Your task to perform on an android device: open app "Messenger Lite" (install if not already installed) Image 0: 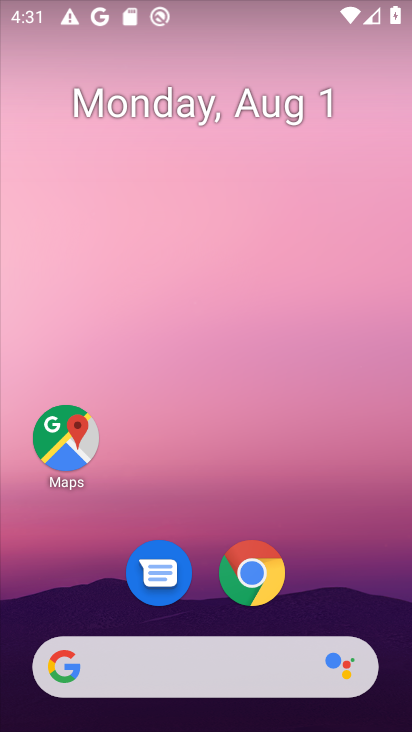
Step 0: drag from (243, 564) to (200, 185)
Your task to perform on an android device: open app "Messenger Lite" (install if not already installed) Image 1: 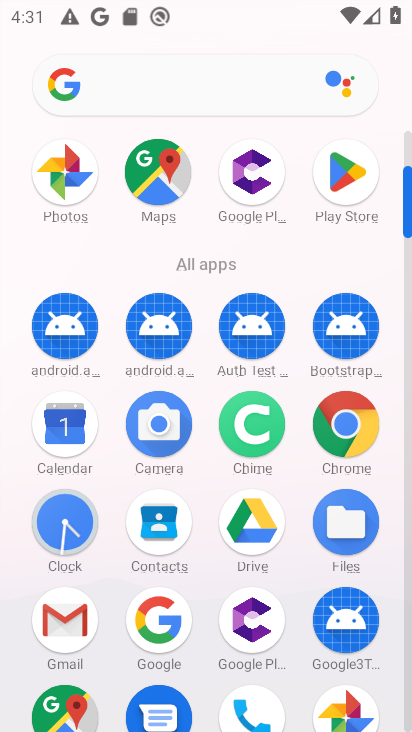
Step 1: drag from (210, 475) to (249, 118)
Your task to perform on an android device: open app "Messenger Lite" (install if not already installed) Image 2: 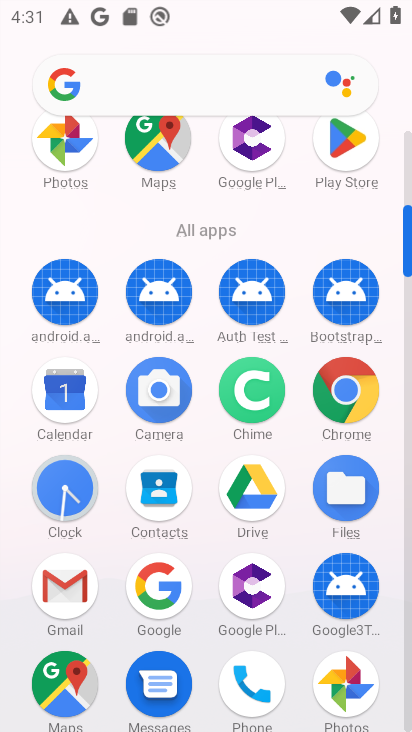
Step 2: click (343, 153)
Your task to perform on an android device: open app "Messenger Lite" (install if not already installed) Image 3: 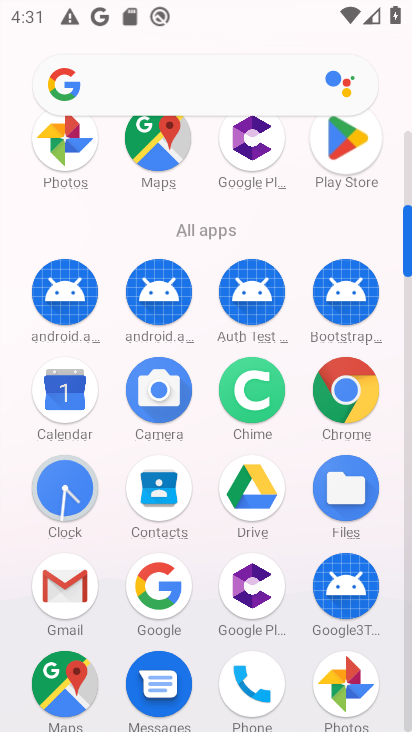
Step 3: click (344, 151)
Your task to perform on an android device: open app "Messenger Lite" (install if not already installed) Image 4: 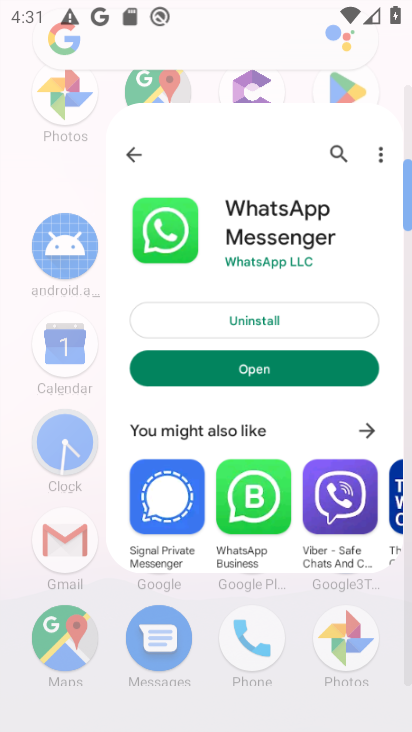
Step 4: click (344, 151)
Your task to perform on an android device: open app "Messenger Lite" (install if not already installed) Image 5: 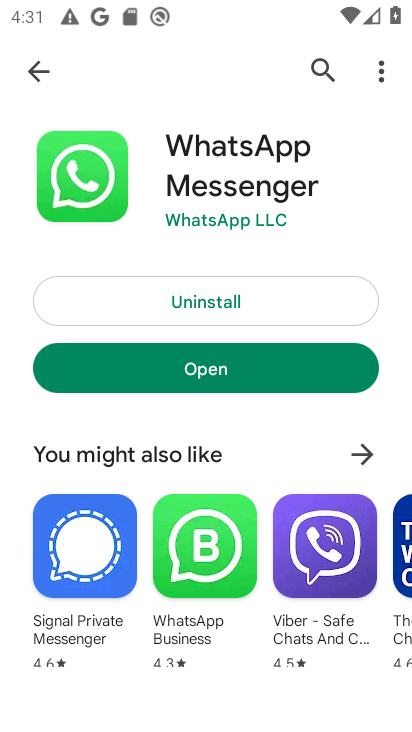
Step 5: click (37, 73)
Your task to perform on an android device: open app "Messenger Lite" (install if not already installed) Image 6: 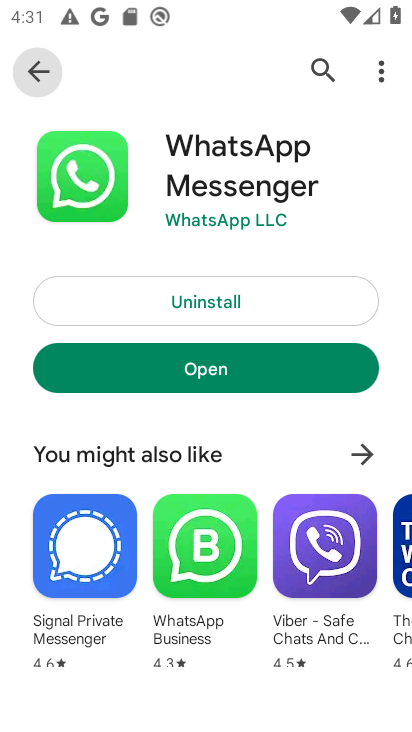
Step 6: click (38, 72)
Your task to perform on an android device: open app "Messenger Lite" (install if not already installed) Image 7: 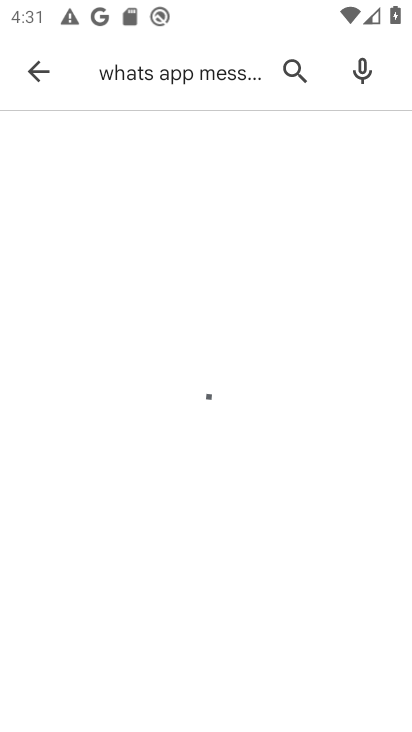
Step 7: click (38, 72)
Your task to perform on an android device: open app "Messenger Lite" (install if not already installed) Image 8: 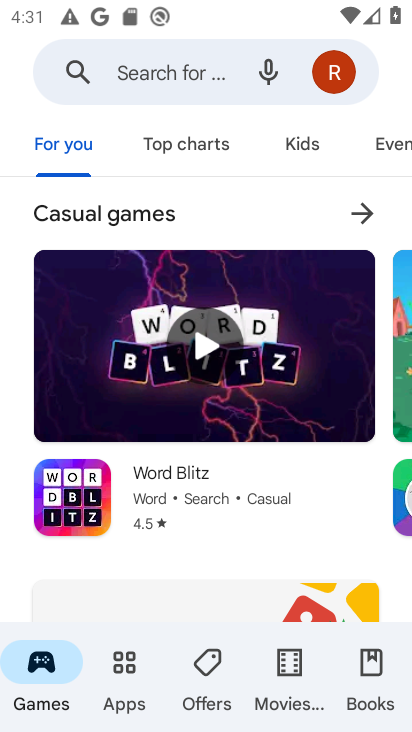
Step 8: click (152, 79)
Your task to perform on an android device: open app "Messenger Lite" (install if not already installed) Image 9: 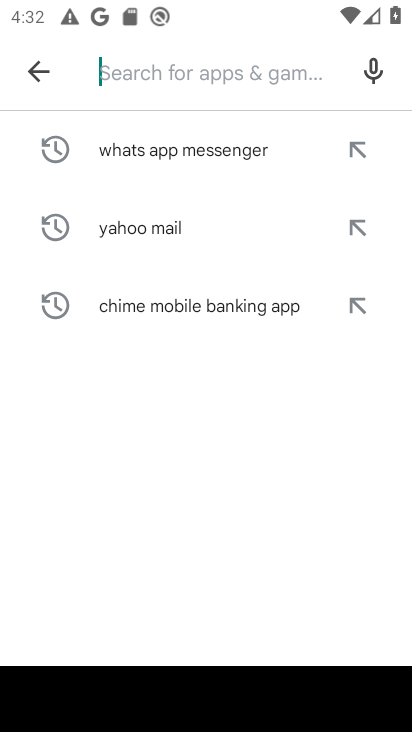
Step 9: type "messenger lite"
Your task to perform on an android device: open app "Messenger Lite" (install if not already installed) Image 10: 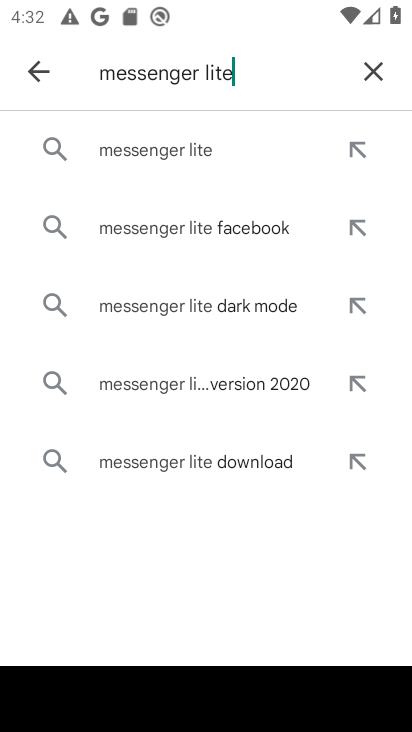
Step 10: click (158, 135)
Your task to perform on an android device: open app "Messenger Lite" (install if not already installed) Image 11: 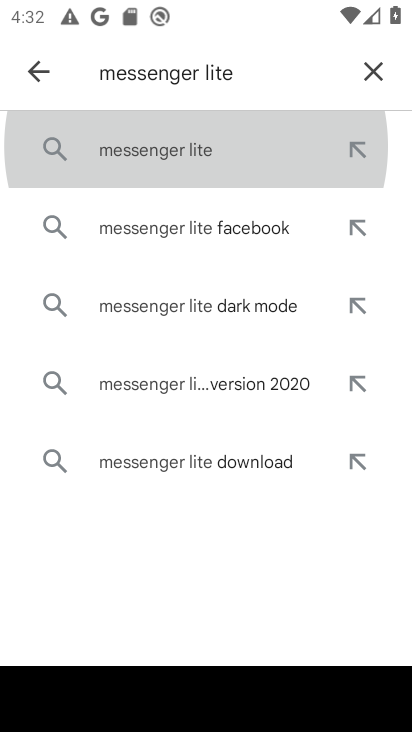
Step 11: click (156, 168)
Your task to perform on an android device: open app "Messenger Lite" (install if not already installed) Image 12: 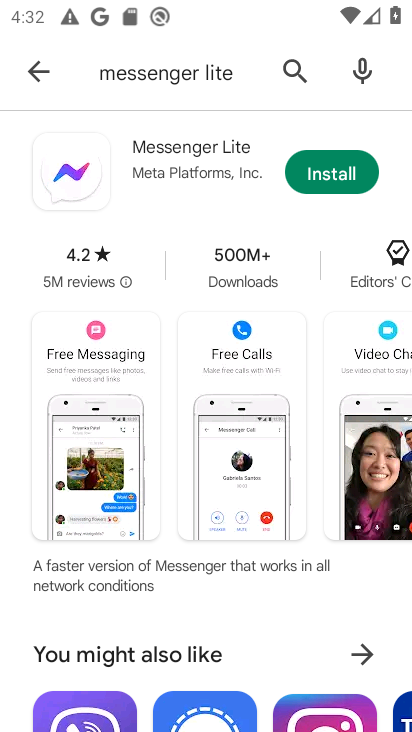
Step 12: click (321, 179)
Your task to perform on an android device: open app "Messenger Lite" (install if not already installed) Image 13: 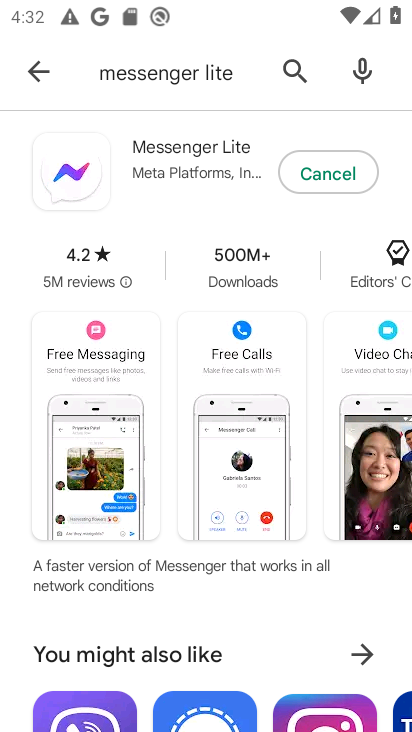
Step 13: click (323, 177)
Your task to perform on an android device: open app "Messenger Lite" (install if not already installed) Image 14: 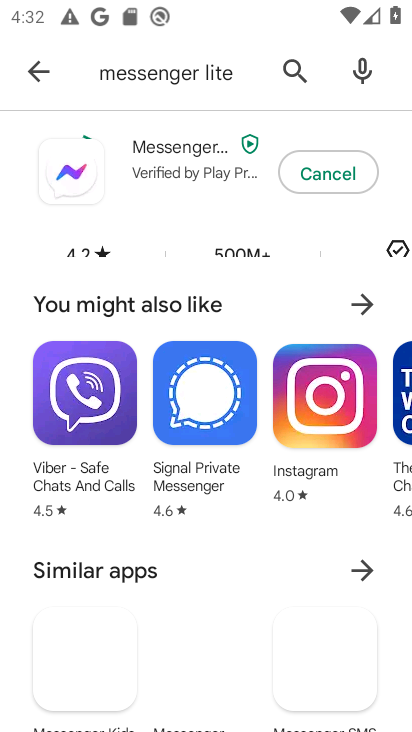
Step 14: click (323, 177)
Your task to perform on an android device: open app "Messenger Lite" (install if not already installed) Image 15: 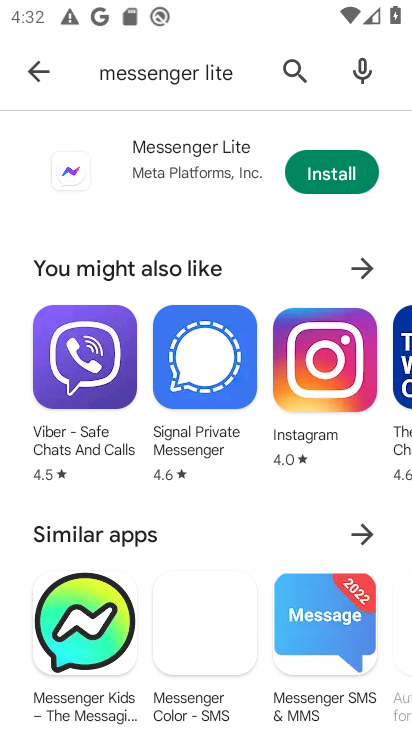
Step 15: click (324, 177)
Your task to perform on an android device: open app "Messenger Lite" (install if not already installed) Image 16: 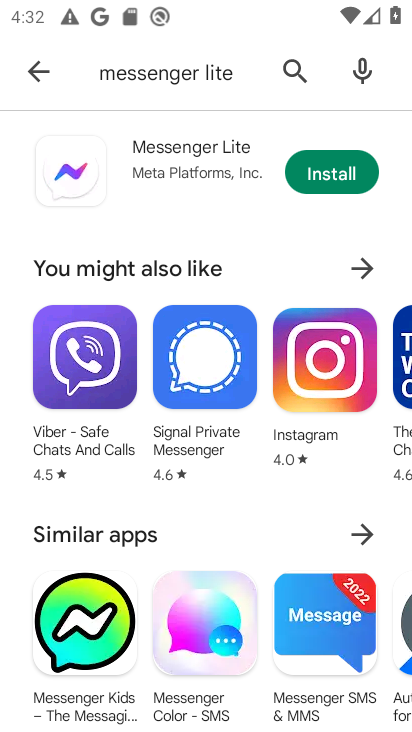
Step 16: click (326, 177)
Your task to perform on an android device: open app "Messenger Lite" (install if not already installed) Image 17: 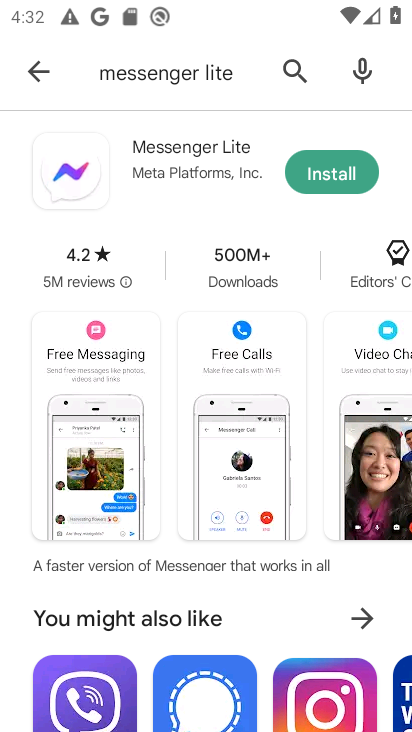
Step 17: click (327, 177)
Your task to perform on an android device: open app "Messenger Lite" (install if not already installed) Image 18: 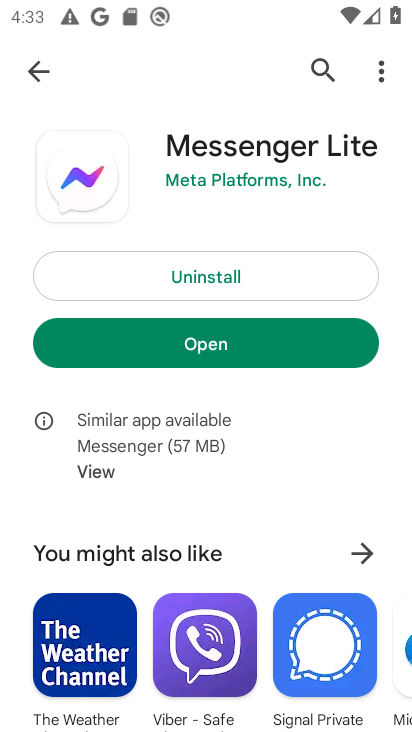
Step 18: click (204, 347)
Your task to perform on an android device: open app "Messenger Lite" (install if not already installed) Image 19: 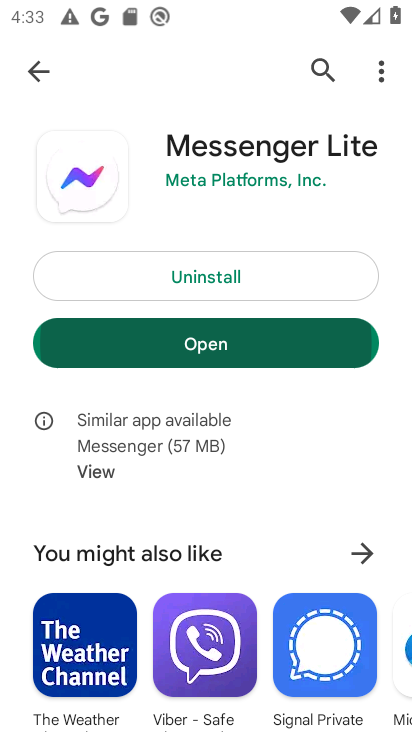
Step 19: click (204, 352)
Your task to perform on an android device: open app "Messenger Lite" (install if not already installed) Image 20: 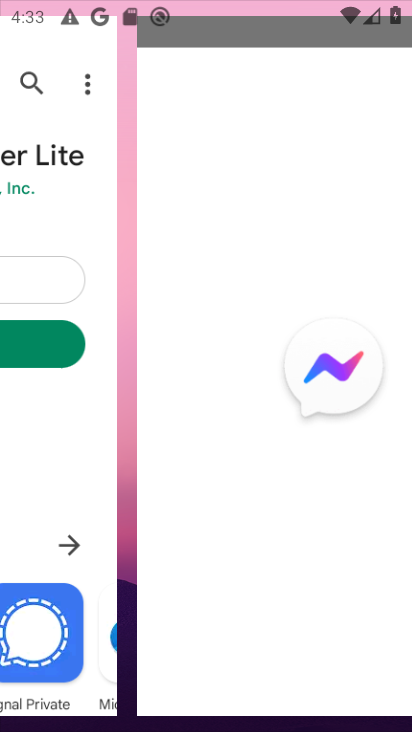
Step 20: click (204, 352)
Your task to perform on an android device: open app "Messenger Lite" (install if not already installed) Image 21: 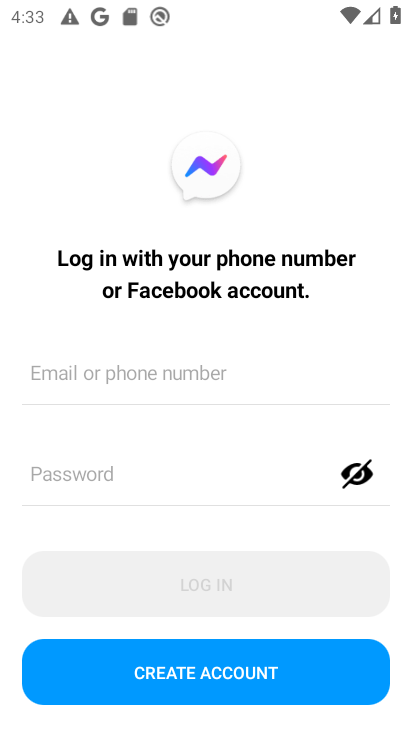
Step 21: task complete